Your task to perform on an android device: Go to accessibility settings Image 0: 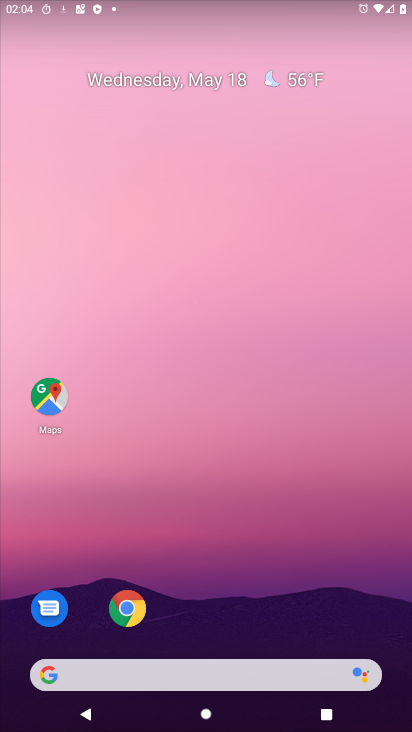
Step 0: drag from (255, 706) to (269, 226)
Your task to perform on an android device: Go to accessibility settings Image 1: 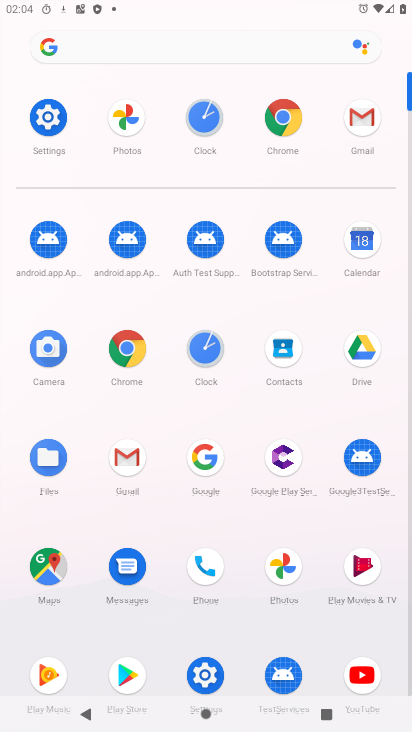
Step 1: click (49, 127)
Your task to perform on an android device: Go to accessibility settings Image 2: 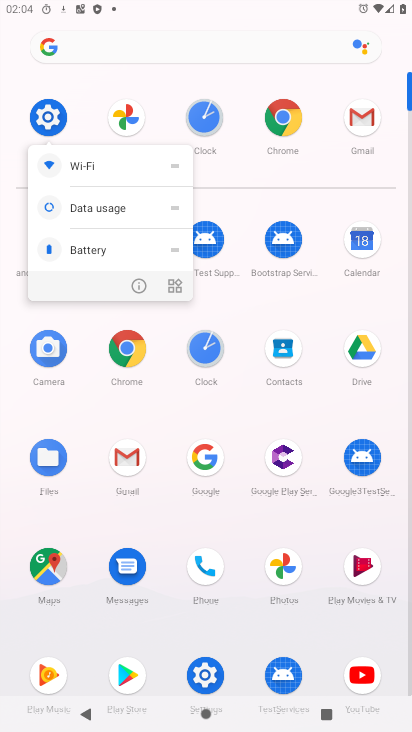
Step 2: click (47, 127)
Your task to perform on an android device: Go to accessibility settings Image 3: 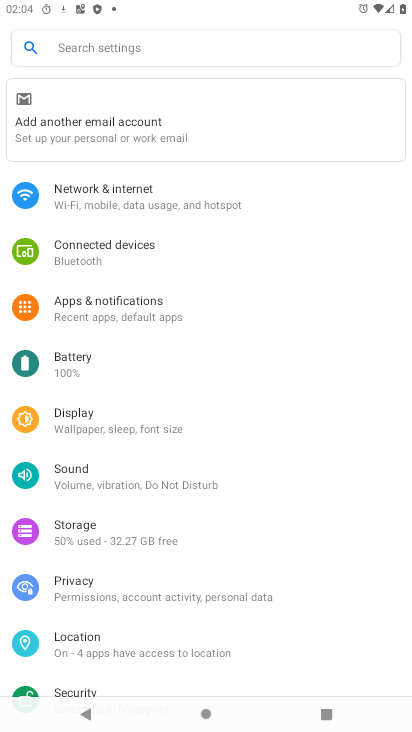
Step 3: click (102, 48)
Your task to perform on an android device: Go to accessibility settings Image 4: 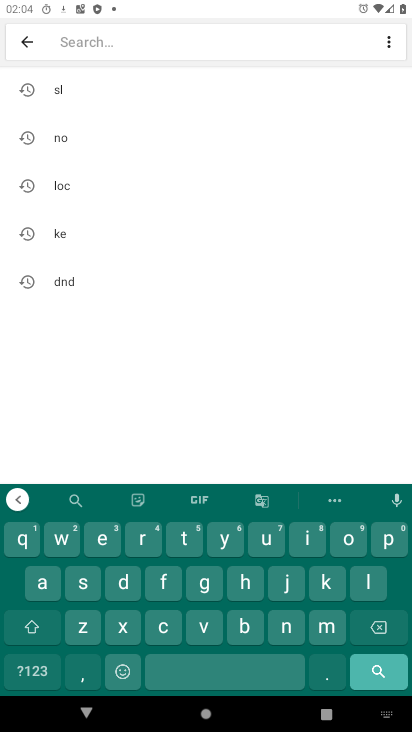
Step 4: click (38, 585)
Your task to perform on an android device: Go to accessibility settings Image 5: 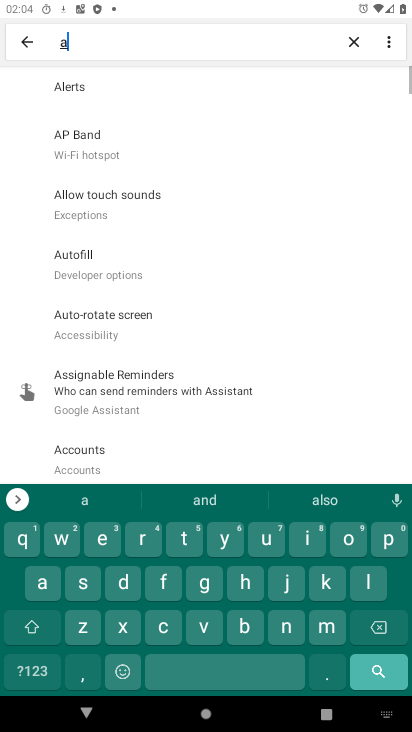
Step 5: click (163, 625)
Your task to perform on an android device: Go to accessibility settings Image 6: 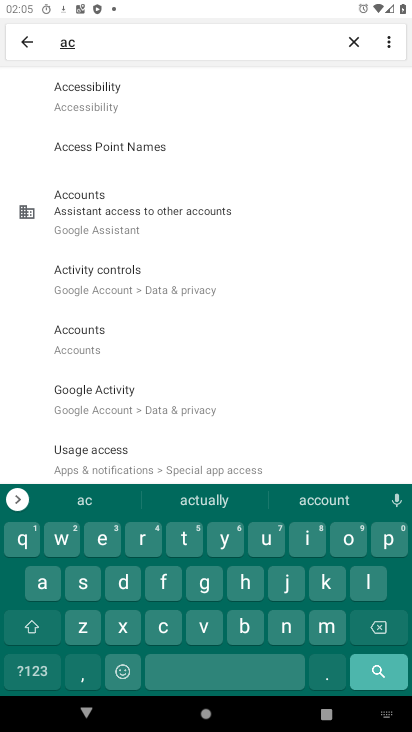
Step 6: click (91, 111)
Your task to perform on an android device: Go to accessibility settings Image 7: 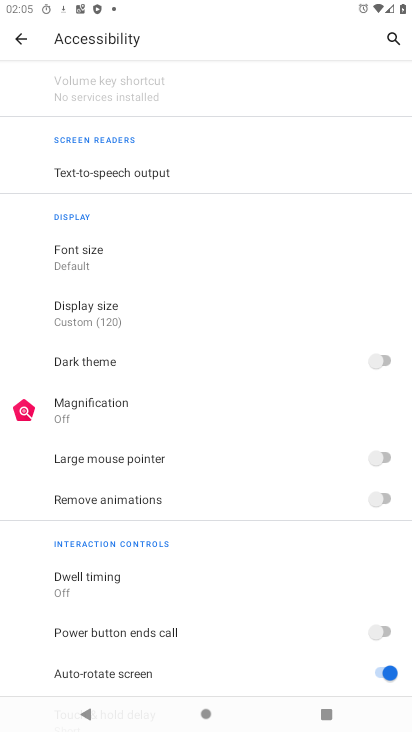
Step 7: task complete